Your task to perform on an android device: refresh tabs in the chrome app Image 0: 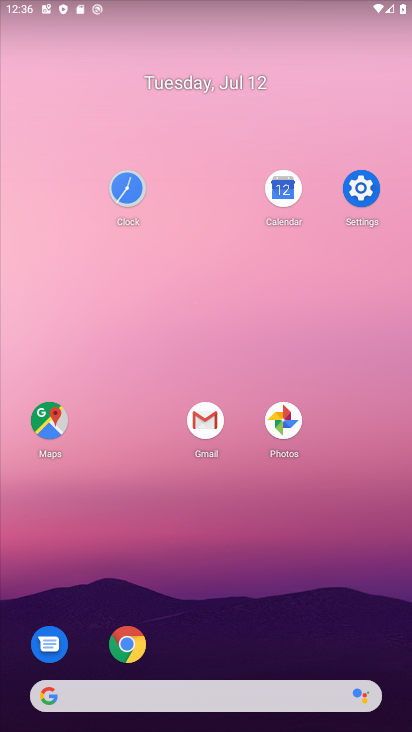
Step 0: click (129, 650)
Your task to perform on an android device: refresh tabs in the chrome app Image 1: 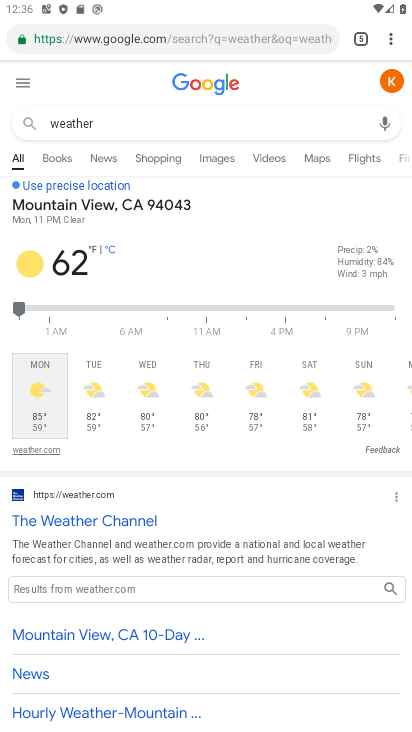
Step 1: click (388, 34)
Your task to perform on an android device: refresh tabs in the chrome app Image 2: 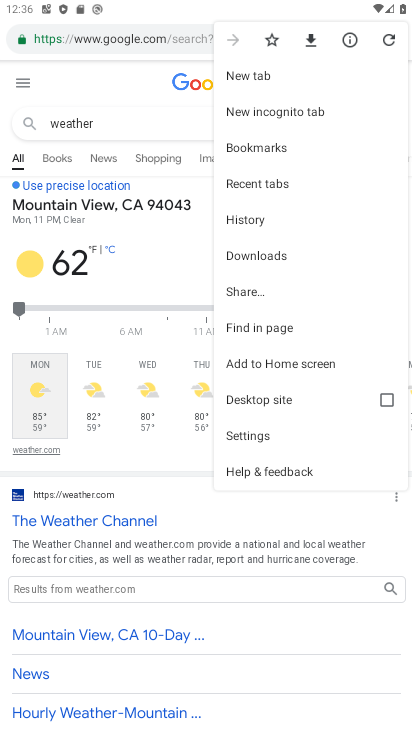
Step 2: click (394, 31)
Your task to perform on an android device: refresh tabs in the chrome app Image 3: 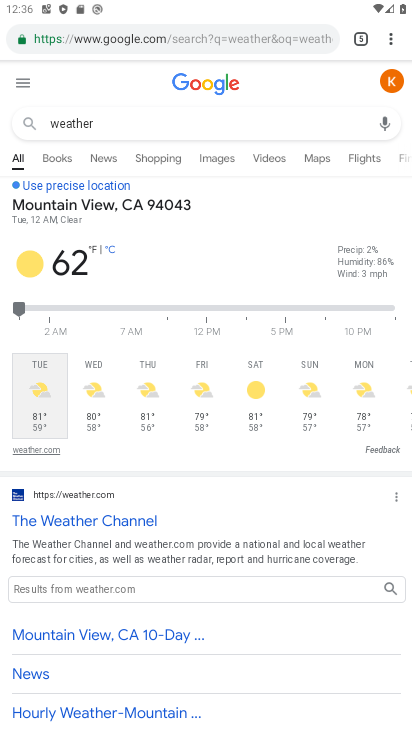
Step 3: task complete